Your task to perform on an android device: Search for pizza restaurants on Maps Image 0: 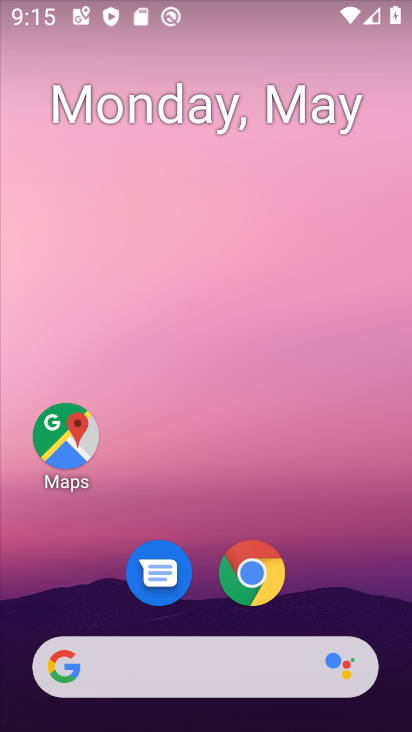
Step 0: click (92, 435)
Your task to perform on an android device: Search for pizza restaurants on Maps Image 1: 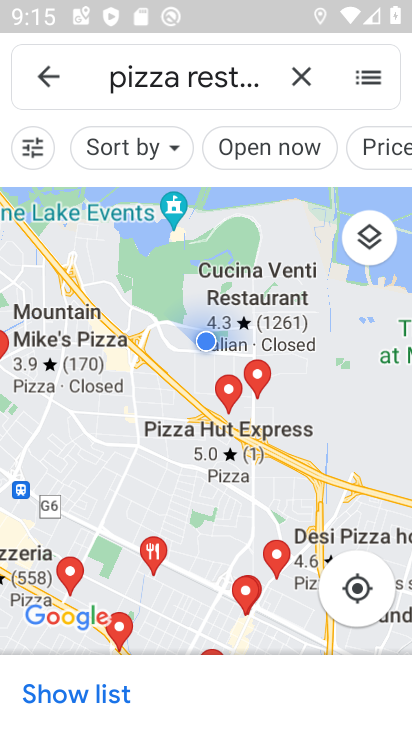
Step 1: task complete